Your task to perform on an android device: Open Chrome and go to settings Image 0: 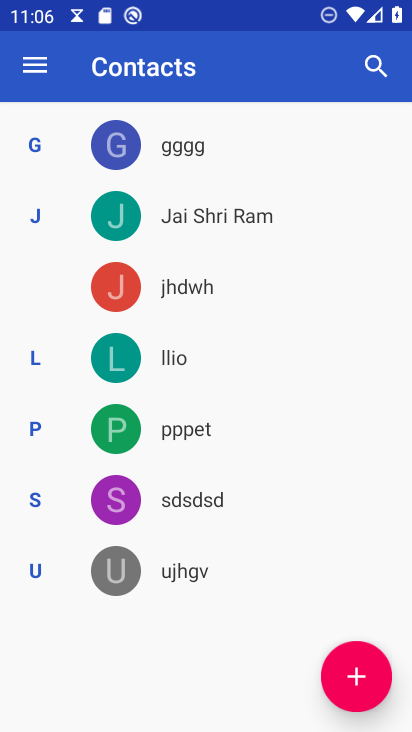
Step 0: press home button
Your task to perform on an android device: Open Chrome and go to settings Image 1: 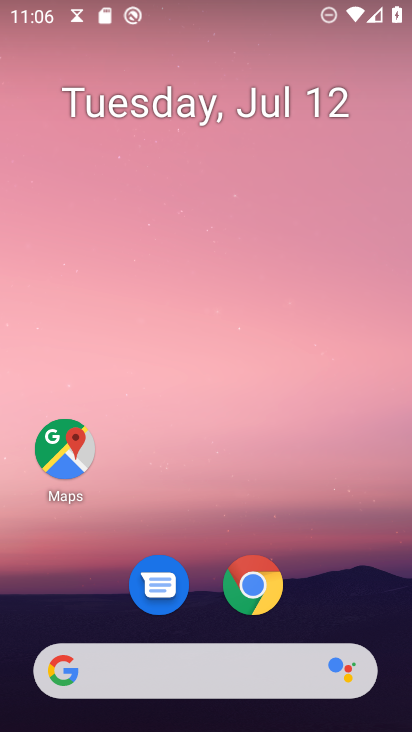
Step 1: click (265, 585)
Your task to perform on an android device: Open Chrome and go to settings Image 2: 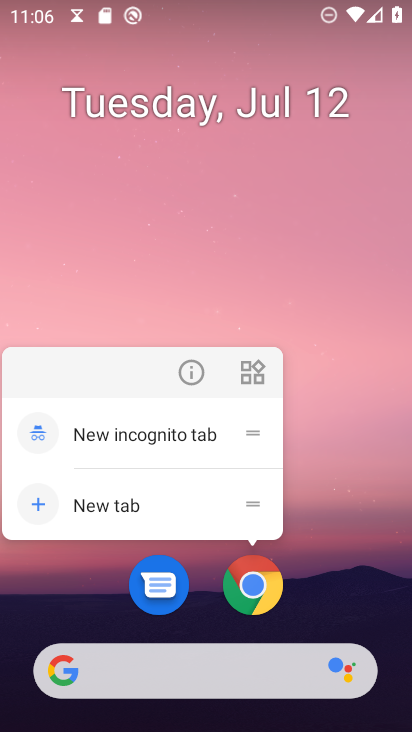
Step 2: click (265, 584)
Your task to perform on an android device: Open Chrome and go to settings Image 3: 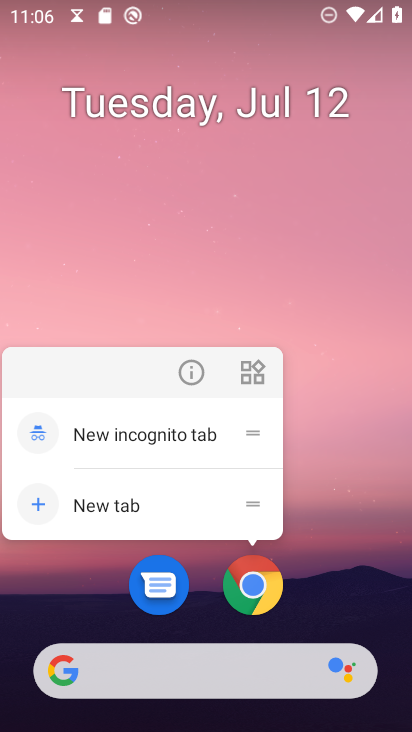
Step 3: click (253, 593)
Your task to perform on an android device: Open Chrome and go to settings Image 4: 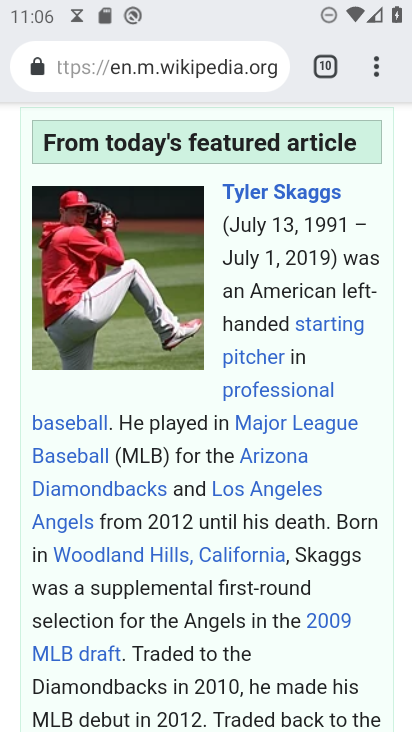
Step 4: task complete